Your task to perform on an android device: Show me the alarms in the clock app Image 0: 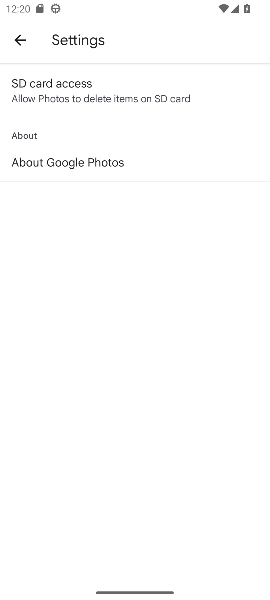
Step 0: press home button
Your task to perform on an android device: Show me the alarms in the clock app Image 1: 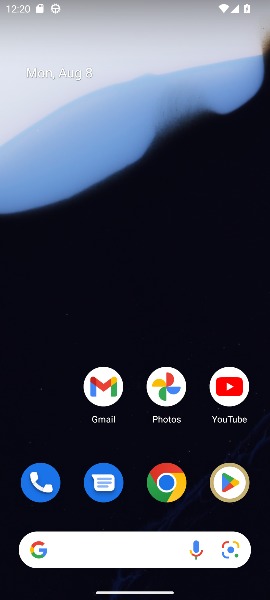
Step 1: drag from (99, 548) to (159, 42)
Your task to perform on an android device: Show me the alarms in the clock app Image 2: 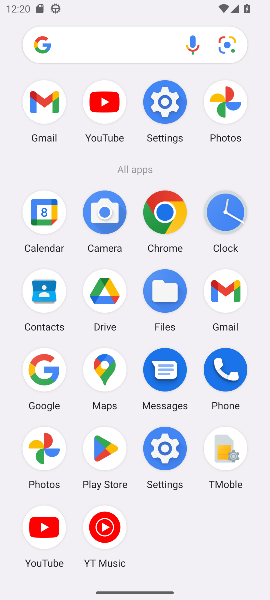
Step 2: click (223, 218)
Your task to perform on an android device: Show me the alarms in the clock app Image 3: 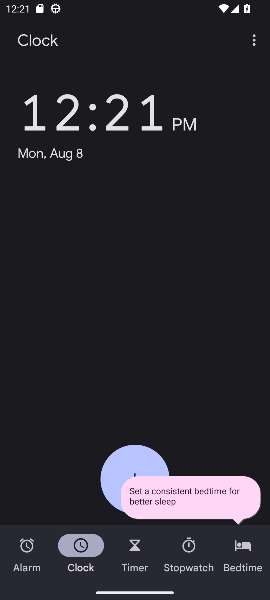
Step 3: click (33, 545)
Your task to perform on an android device: Show me the alarms in the clock app Image 4: 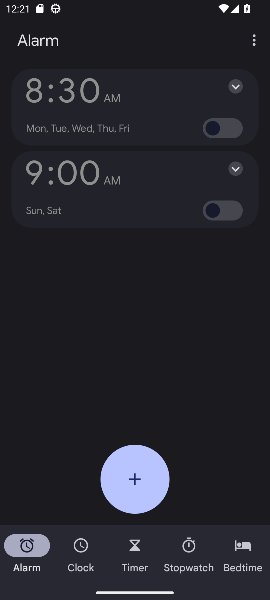
Step 4: task complete